Your task to perform on an android device: Open the calendar app, open the side menu, and click the "Day" option Image 0: 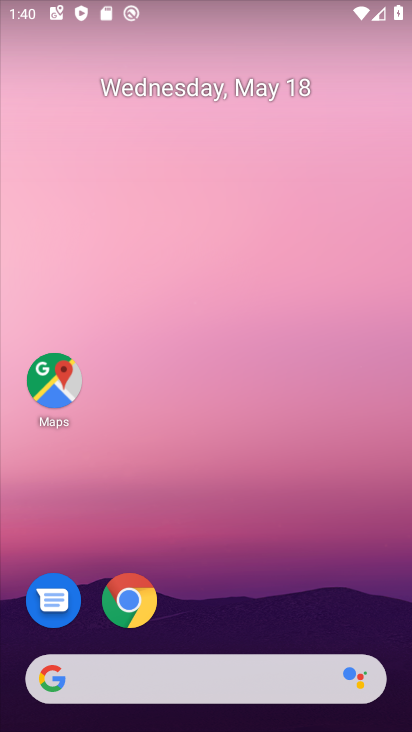
Step 0: drag from (230, 614) to (209, 158)
Your task to perform on an android device: Open the calendar app, open the side menu, and click the "Day" option Image 1: 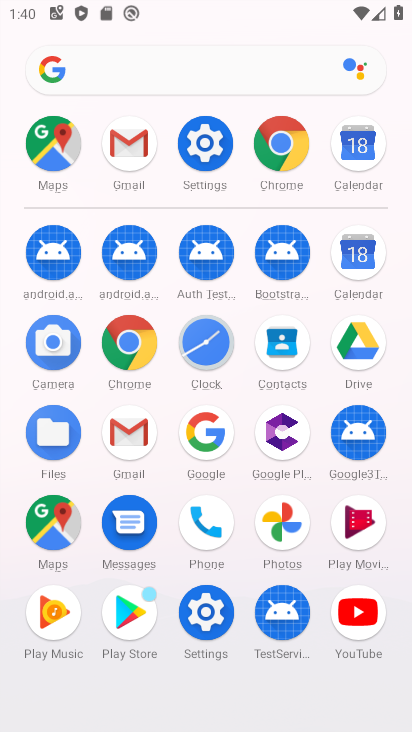
Step 1: click (358, 143)
Your task to perform on an android device: Open the calendar app, open the side menu, and click the "Day" option Image 2: 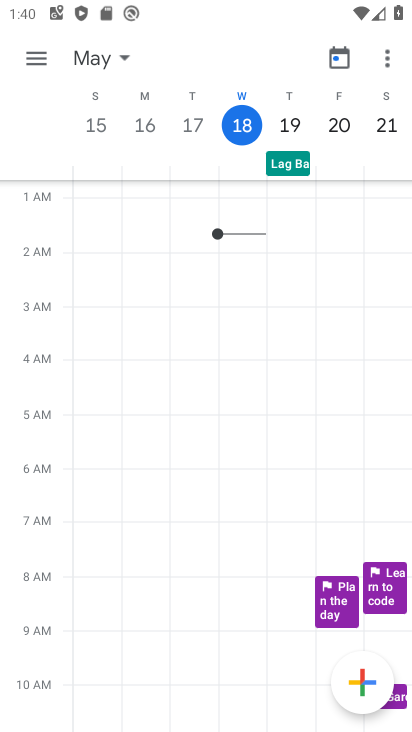
Step 2: click (35, 57)
Your task to perform on an android device: Open the calendar app, open the side menu, and click the "Day" option Image 3: 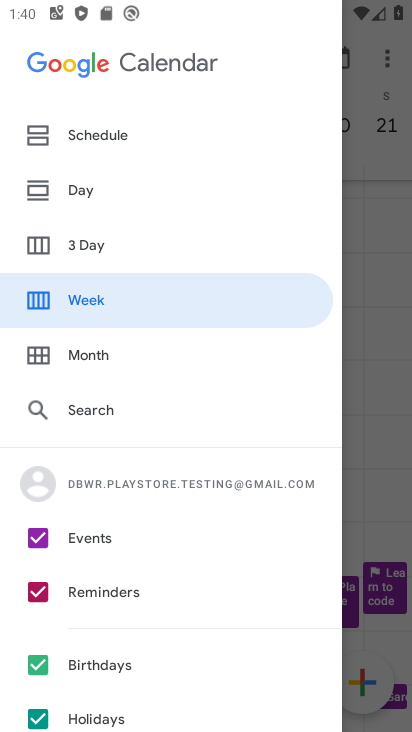
Step 3: click (80, 186)
Your task to perform on an android device: Open the calendar app, open the side menu, and click the "Day" option Image 4: 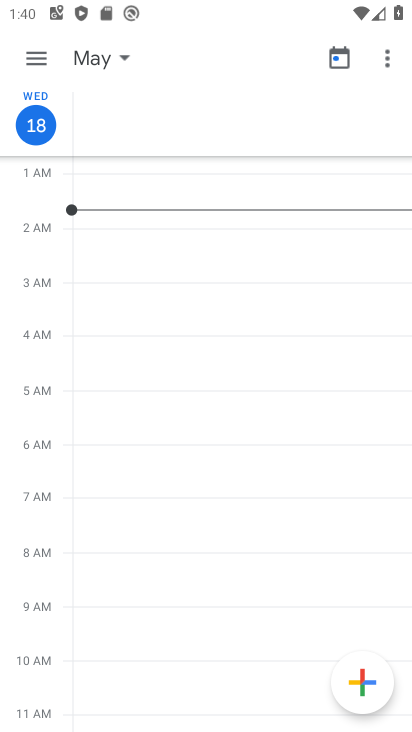
Step 4: task complete